Your task to perform on an android device: Play the last video I watched on Youtube Image 0: 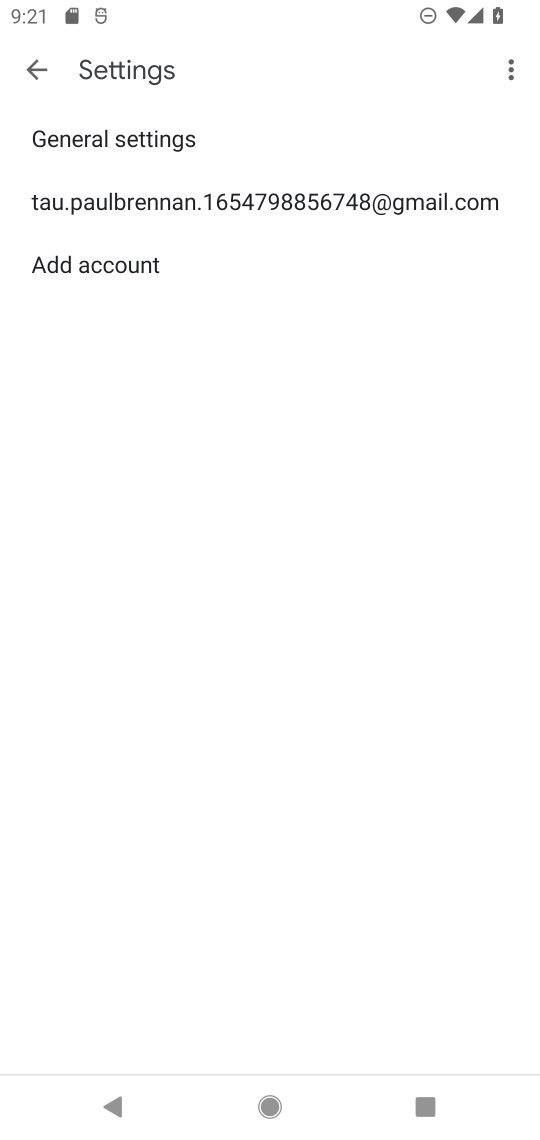
Step 0: press home button
Your task to perform on an android device: Play the last video I watched on Youtube Image 1: 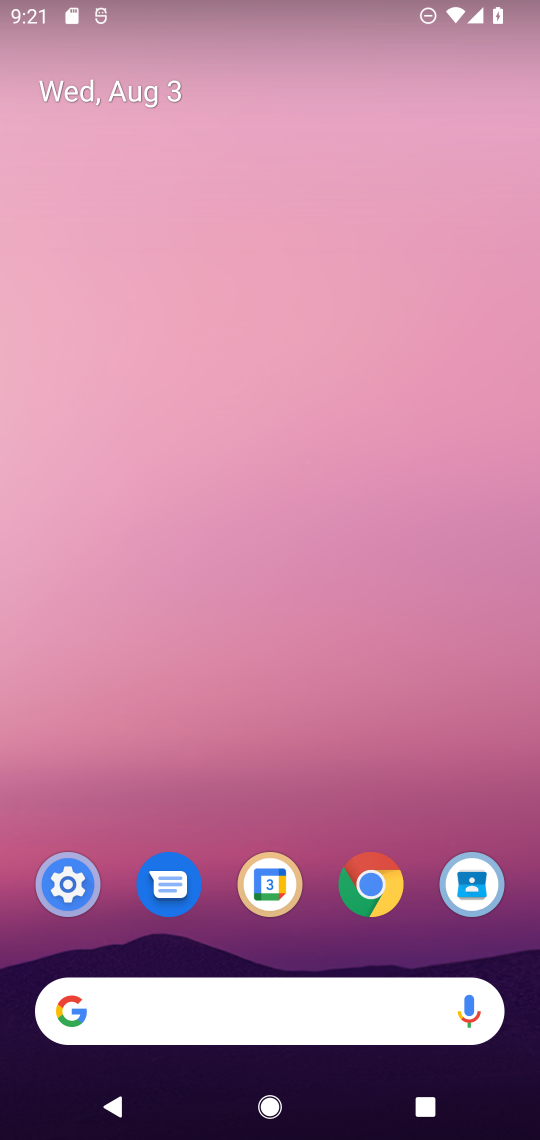
Step 1: drag from (17, 1077) to (322, 268)
Your task to perform on an android device: Play the last video I watched on Youtube Image 2: 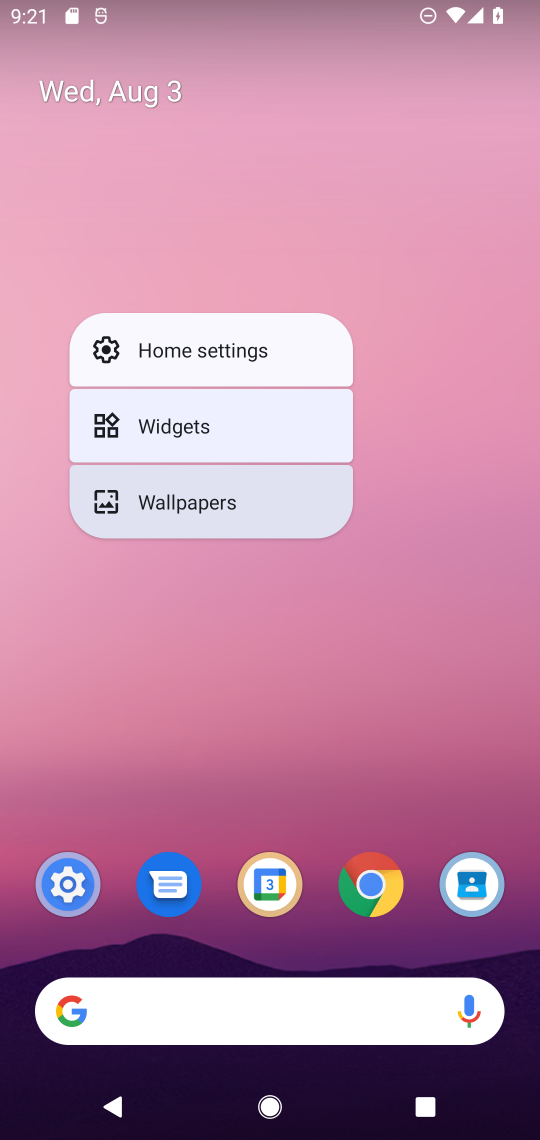
Step 2: drag from (42, 1061) to (179, 392)
Your task to perform on an android device: Play the last video I watched on Youtube Image 3: 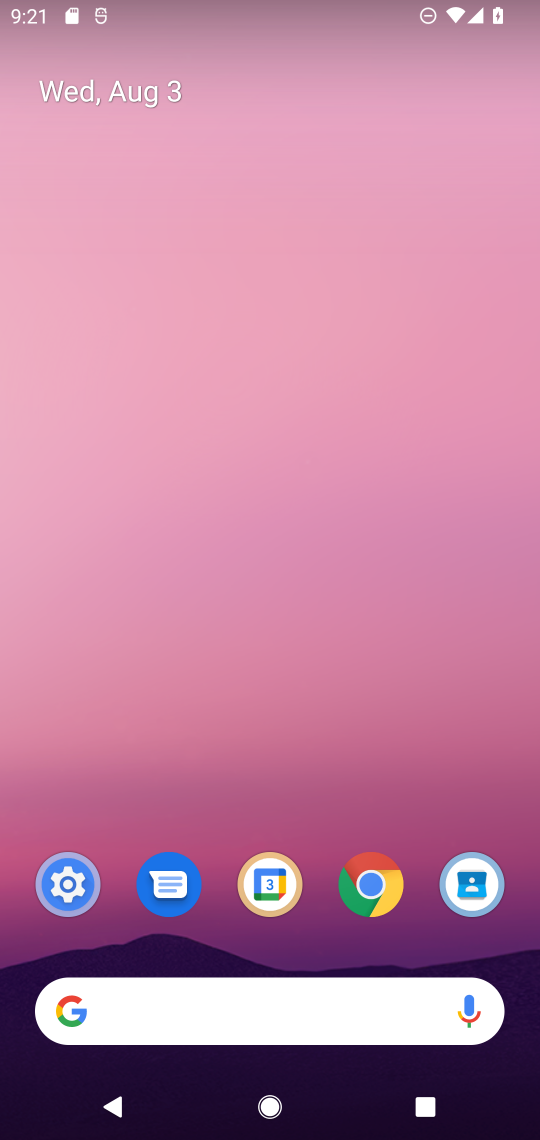
Step 3: drag from (54, 1066) to (288, 141)
Your task to perform on an android device: Play the last video I watched on Youtube Image 4: 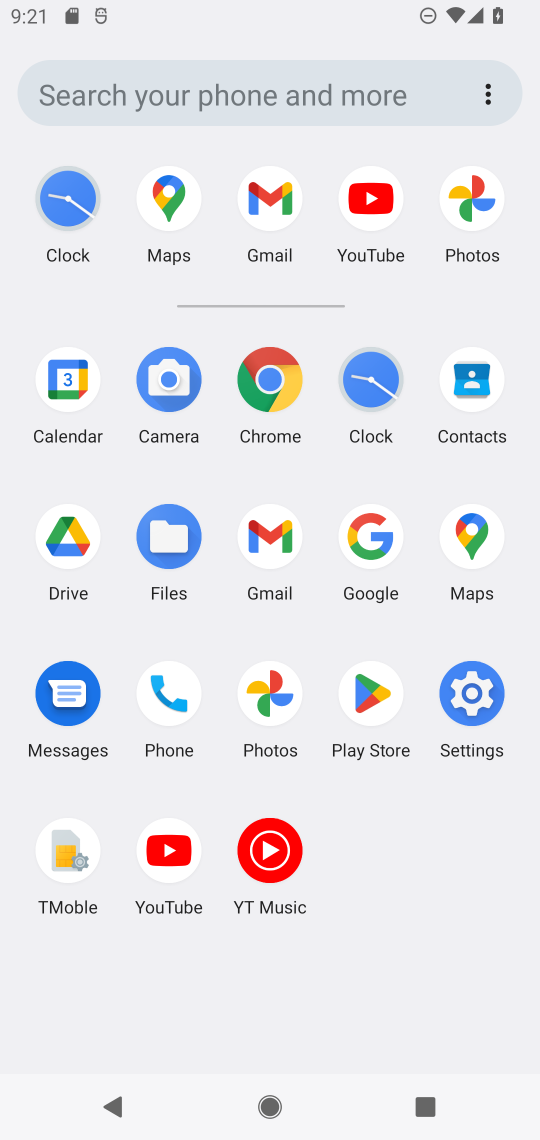
Step 4: click (179, 859)
Your task to perform on an android device: Play the last video I watched on Youtube Image 5: 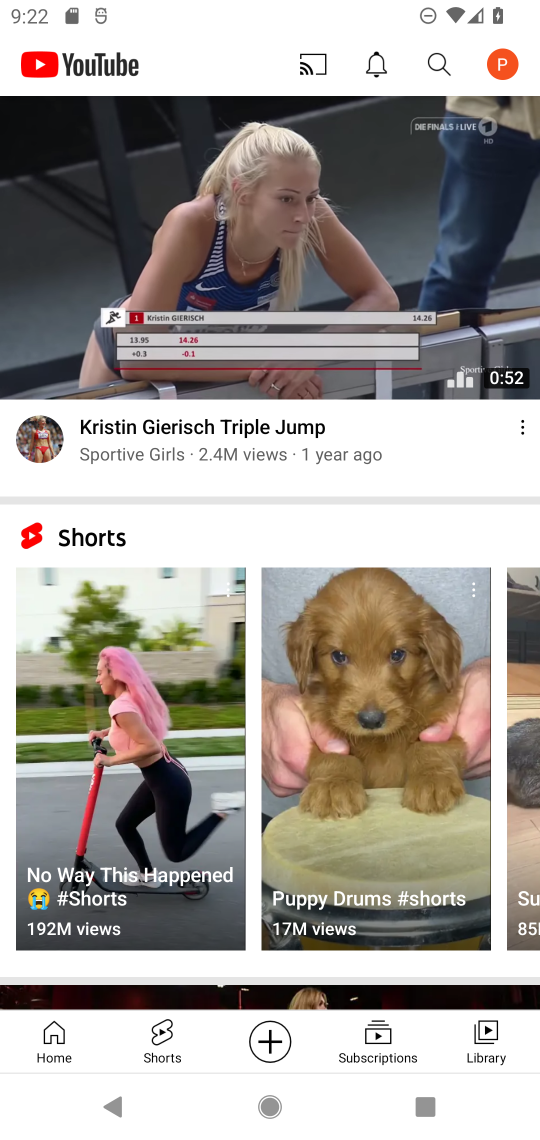
Step 5: click (482, 1046)
Your task to perform on an android device: Play the last video I watched on Youtube Image 6: 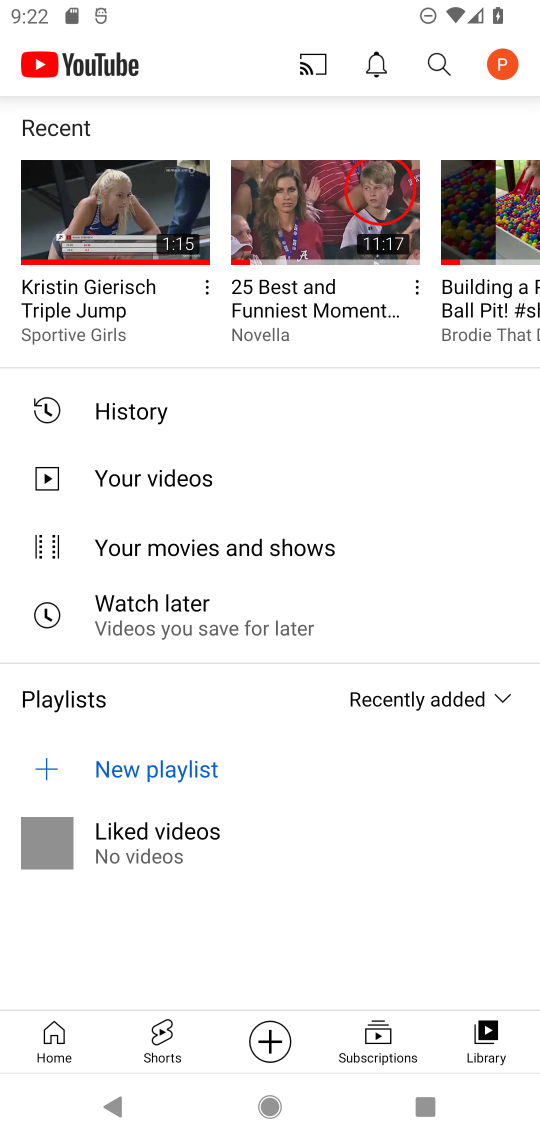
Step 6: click (121, 209)
Your task to perform on an android device: Play the last video I watched on Youtube Image 7: 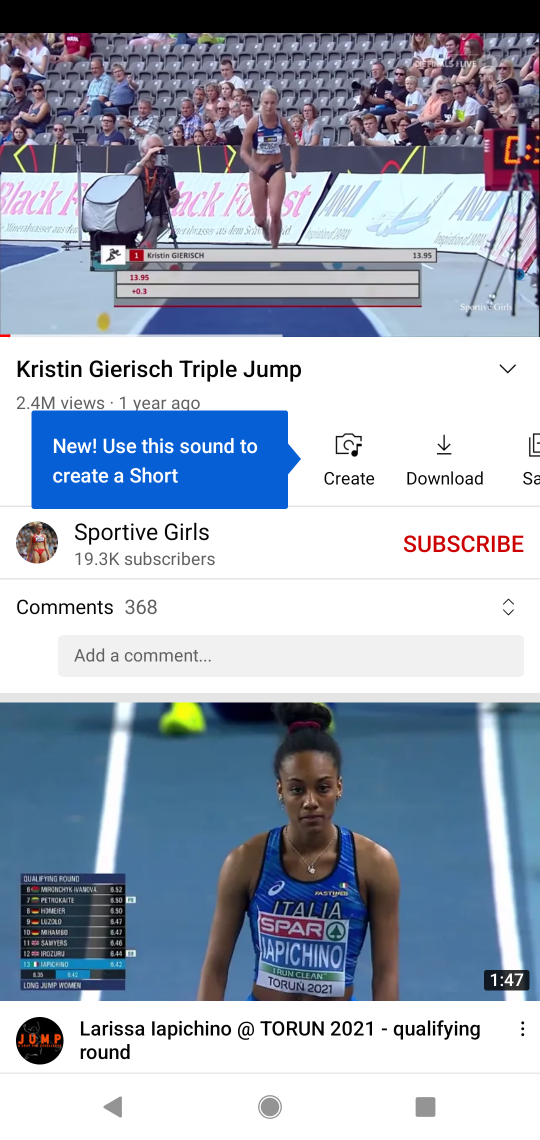
Step 7: click (237, 138)
Your task to perform on an android device: Play the last video I watched on Youtube Image 8: 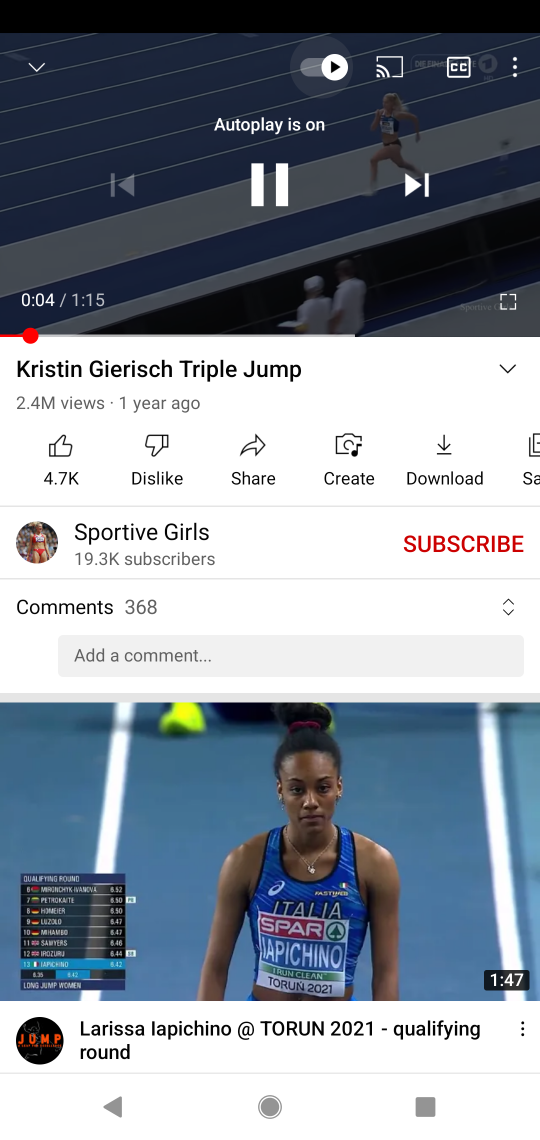
Step 8: click (261, 183)
Your task to perform on an android device: Play the last video I watched on Youtube Image 9: 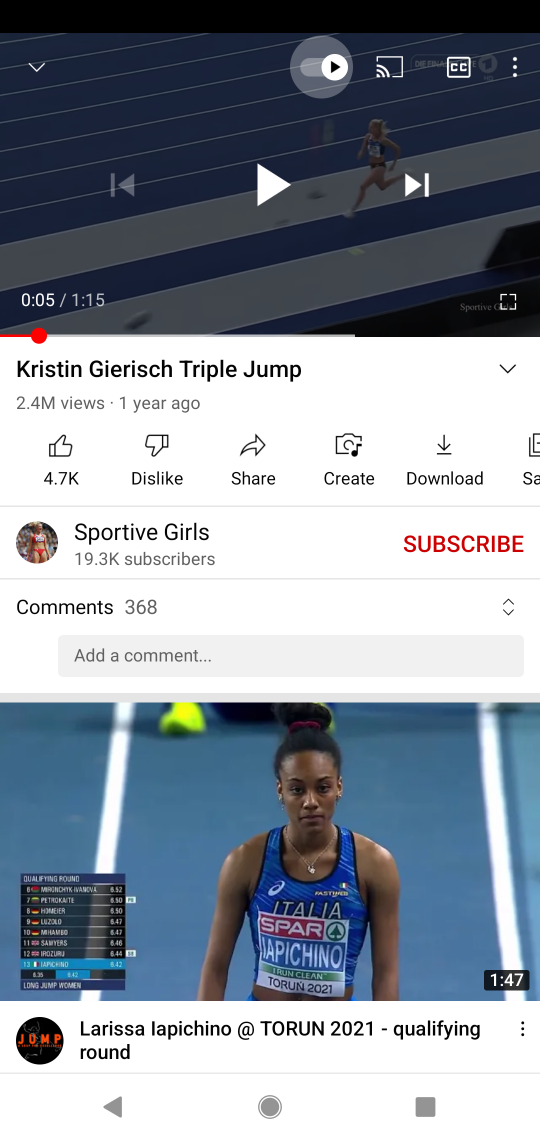
Step 9: task complete